Your task to perform on an android device: Open Google Chrome and click the shortcut for Amazon.com Image 0: 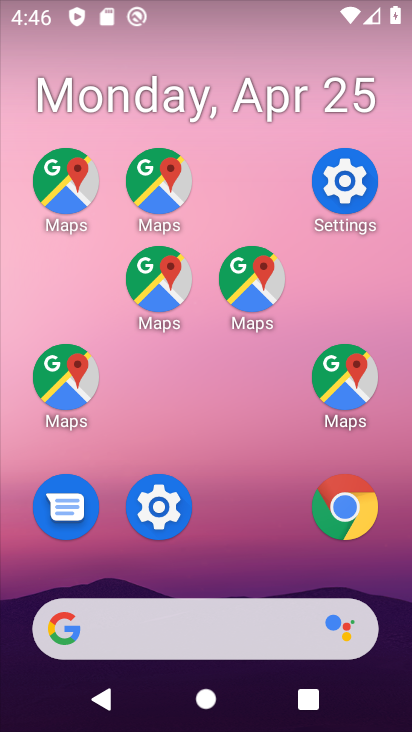
Step 0: drag from (273, 704) to (210, 166)
Your task to perform on an android device: Open Google Chrome and click the shortcut for Amazon.com Image 1: 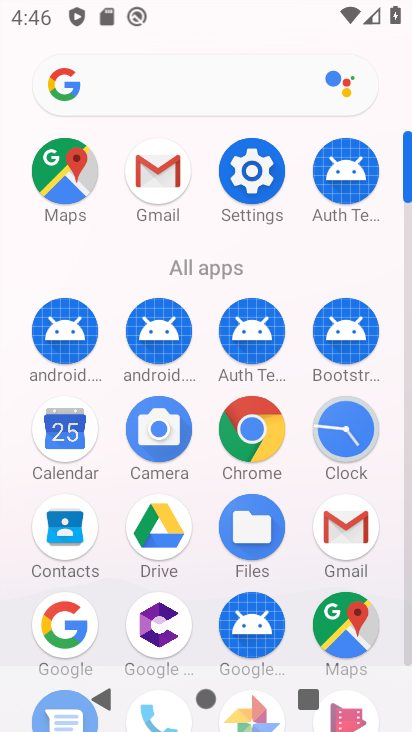
Step 1: drag from (257, 416) to (216, 452)
Your task to perform on an android device: Open Google Chrome and click the shortcut for Amazon.com Image 2: 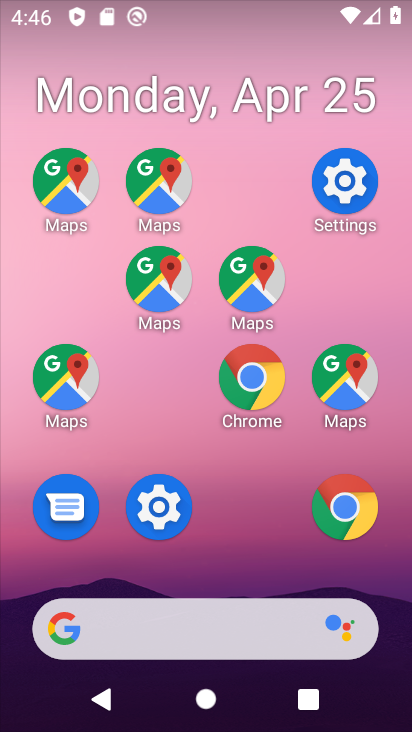
Step 2: drag from (247, 616) to (163, 101)
Your task to perform on an android device: Open Google Chrome and click the shortcut for Amazon.com Image 3: 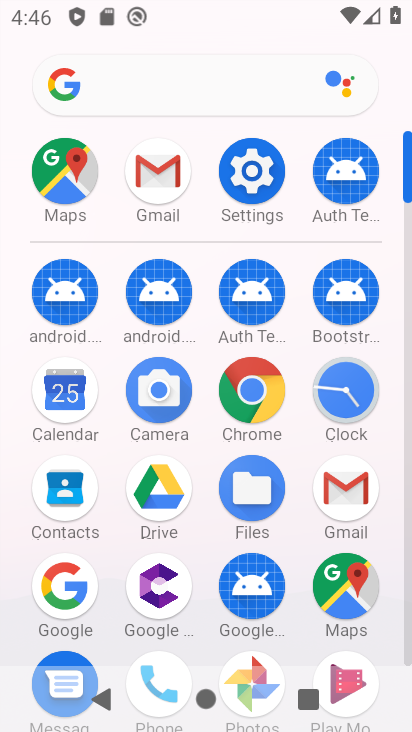
Step 3: click (240, 392)
Your task to perform on an android device: Open Google Chrome and click the shortcut for Amazon.com Image 4: 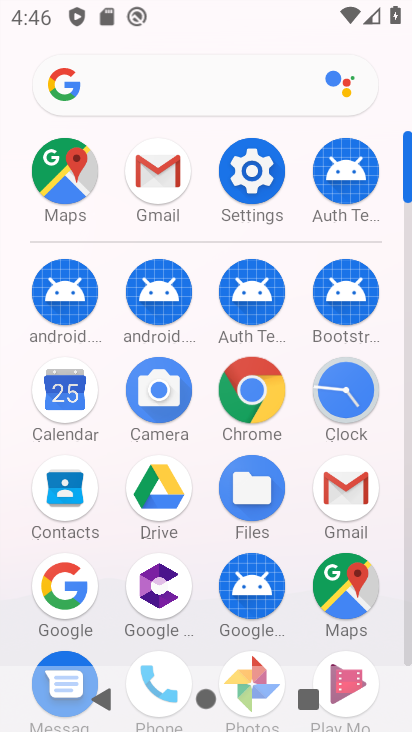
Step 4: click (239, 391)
Your task to perform on an android device: Open Google Chrome and click the shortcut for Amazon.com Image 5: 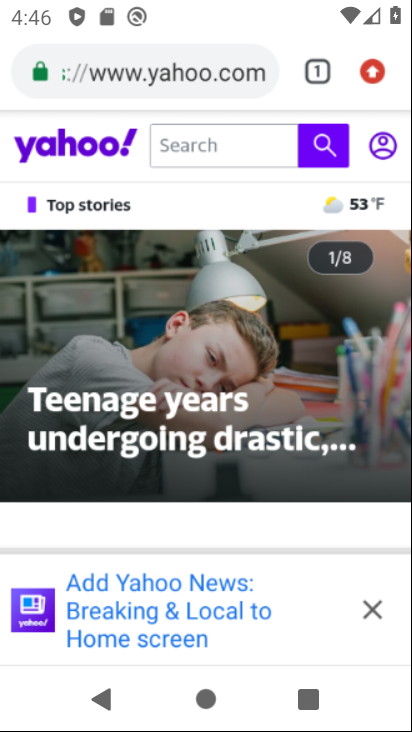
Step 5: click (238, 390)
Your task to perform on an android device: Open Google Chrome and click the shortcut for Amazon.com Image 6: 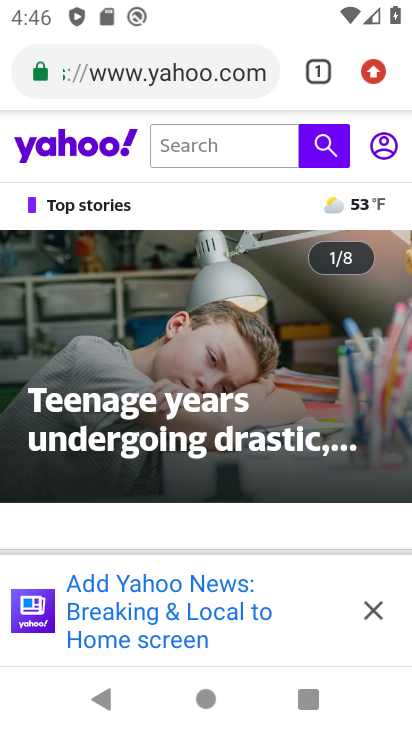
Step 6: drag from (369, 81) to (207, 423)
Your task to perform on an android device: Open Google Chrome and click the shortcut for Amazon.com Image 7: 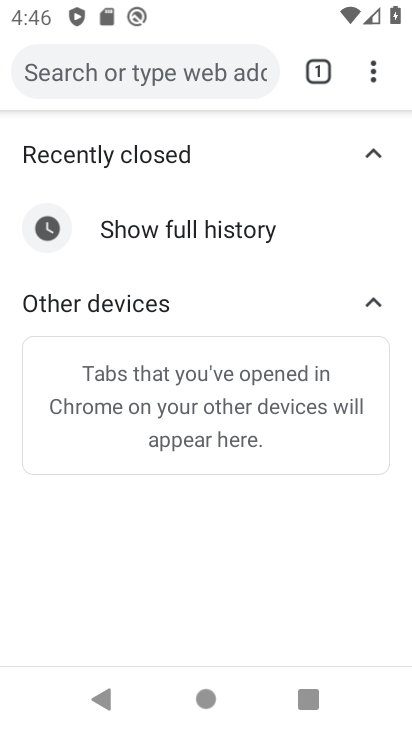
Step 7: drag from (371, 71) to (103, 246)
Your task to perform on an android device: Open Google Chrome and click the shortcut for Amazon.com Image 8: 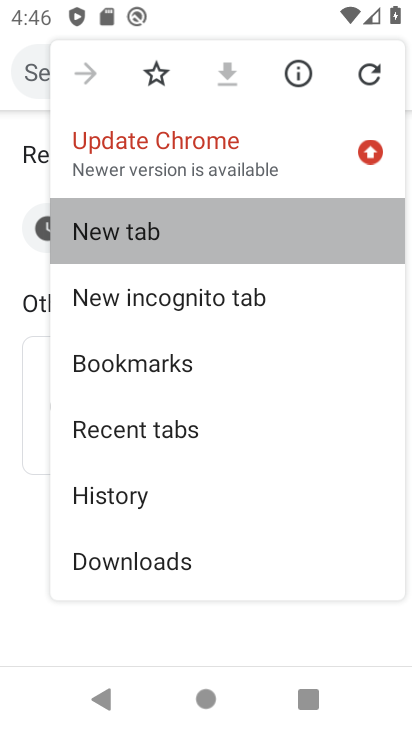
Step 8: click (103, 246)
Your task to perform on an android device: Open Google Chrome and click the shortcut for Amazon.com Image 9: 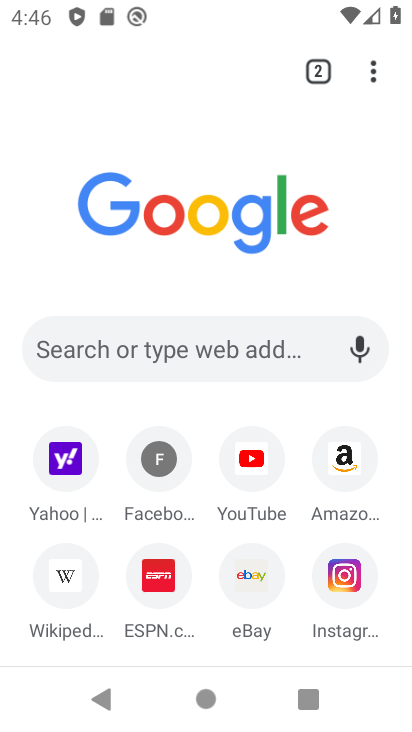
Step 9: click (349, 458)
Your task to perform on an android device: Open Google Chrome and click the shortcut for Amazon.com Image 10: 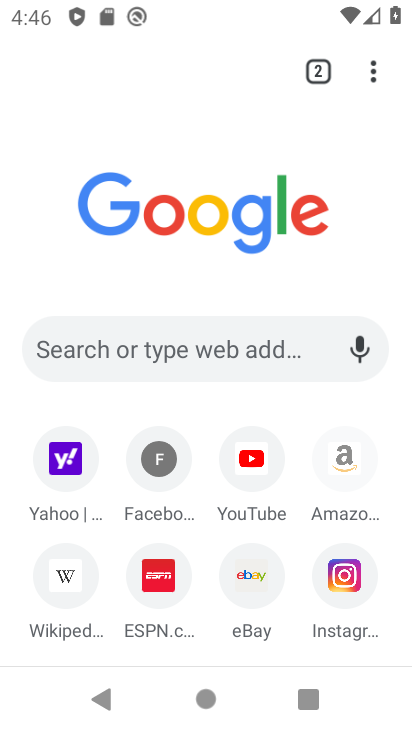
Step 10: click (349, 458)
Your task to perform on an android device: Open Google Chrome and click the shortcut for Amazon.com Image 11: 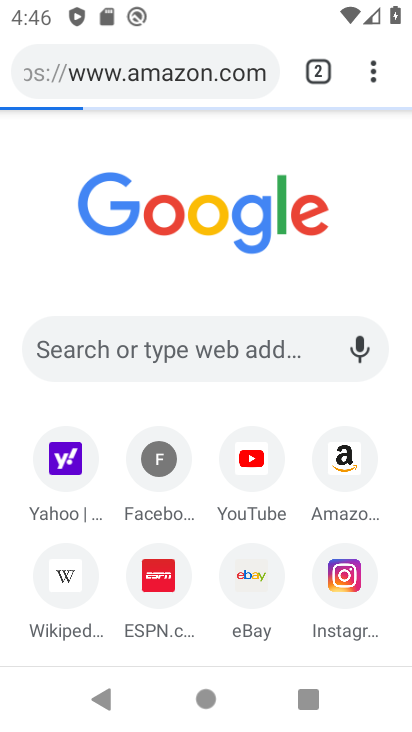
Step 11: click (349, 459)
Your task to perform on an android device: Open Google Chrome and click the shortcut for Amazon.com Image 12: 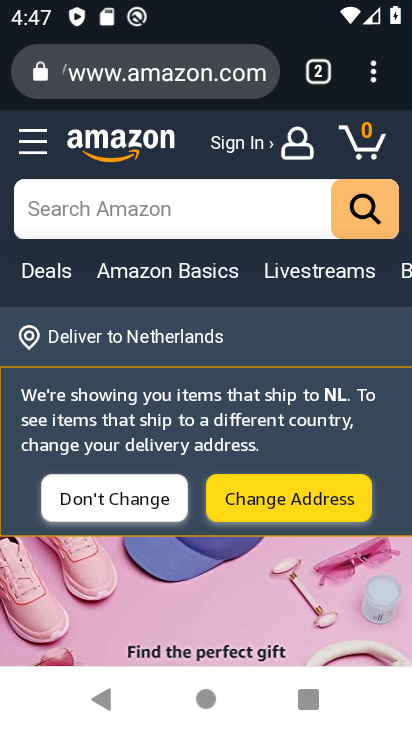
Step 12: task complete